Your task to perform on an android device: Go to Maps Image 0: 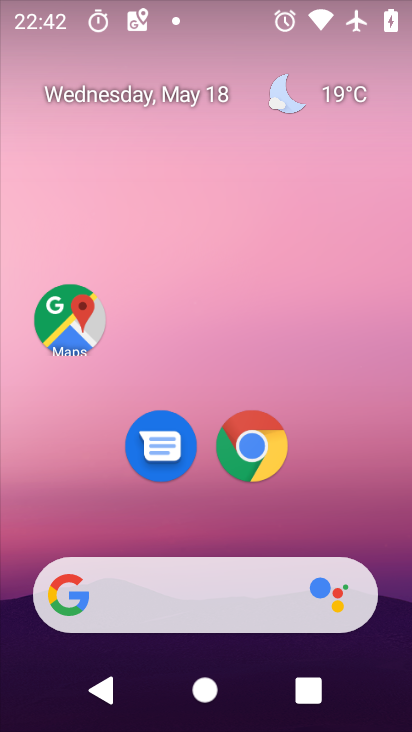
Step 0: press home button
Your task to perform on an android device: Go to Maps Image 1: 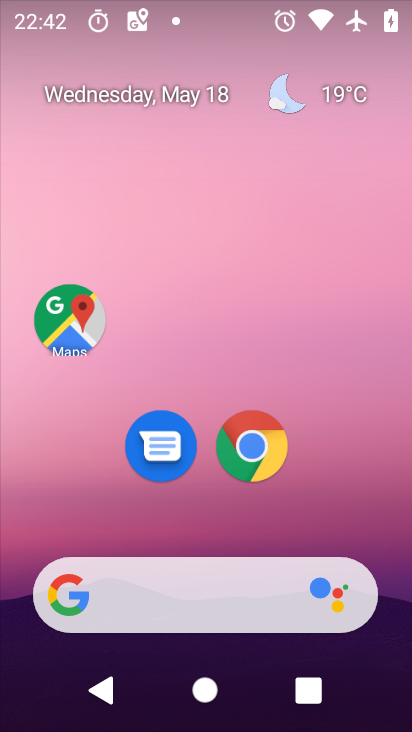
Step 1: click (75, 326)
Your task to perform on an android device: Go to Maps Image 2: 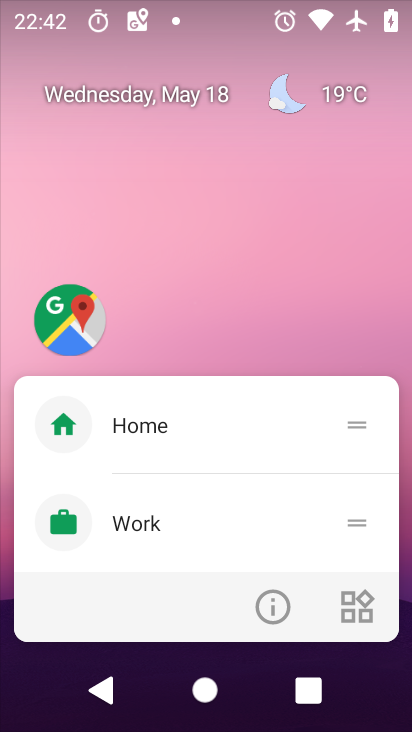
Step 2: click (71, 321)
Your task to perform on an android device: Go to Maps Image 3: 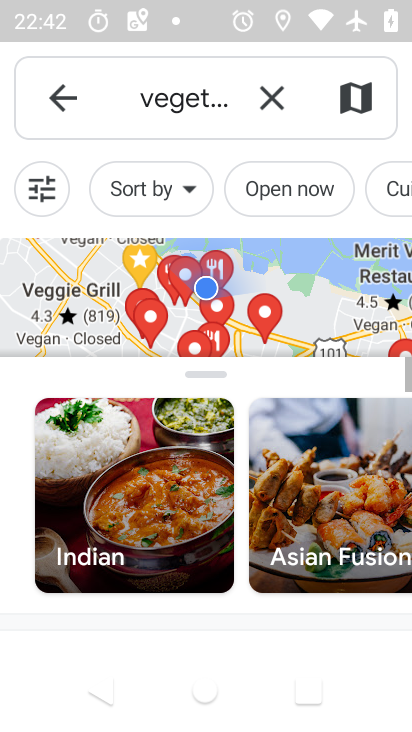
Step 3: click (64, 97)
Your task to perform on an android device: Go to Maps Image 4: 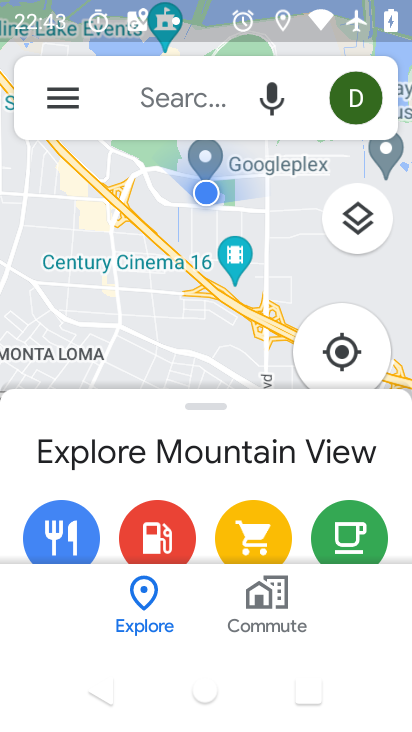
Step 4: task complete